Your task to perform on an android device: install app "Spotify" Image 0: 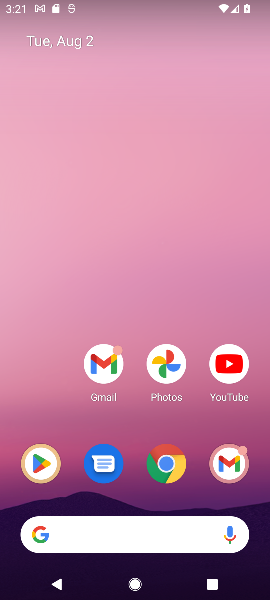
Step 0: click (36, 462)
Your task to perform on an android device: install app "Spotify" Image 1: 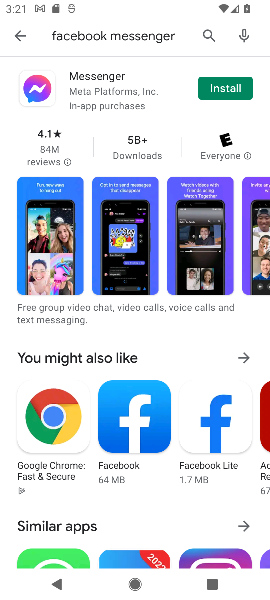
Step 1: click (206, 34)
Your task to perform on an android device: install app "Spotify" Image 2: 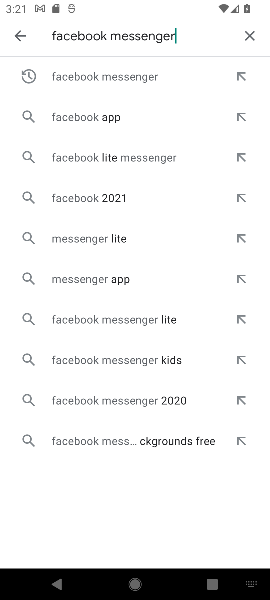
Step 2: click (246, 36)
Your task to perform on an android device: install app "Spotify" Image 3: 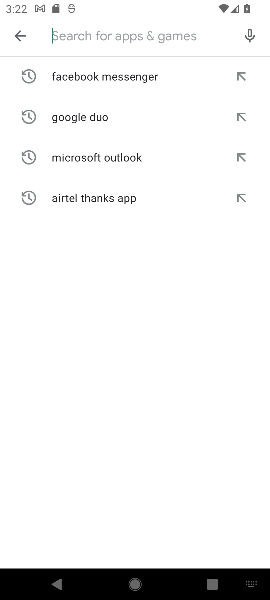
Step 3: type "Spotify"
Your task to perform on an android device: install app "Spotify" Image 4: 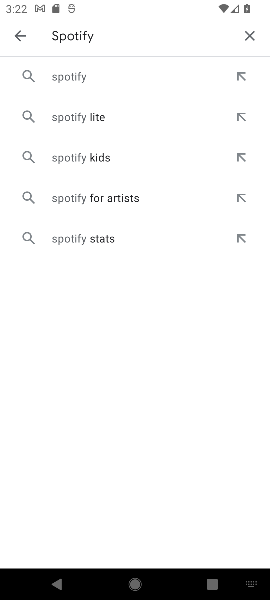
Step 4: click (76, 70)
Your task to perform on an android device: install app "Spotify" Image 5: 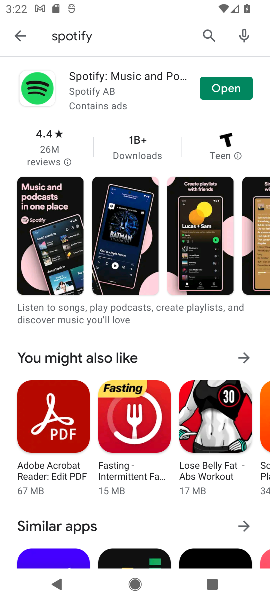
Step 5: task complete